Your task to perform on an android device: Add logitech g502 to the cart on newegg.com Image 0: 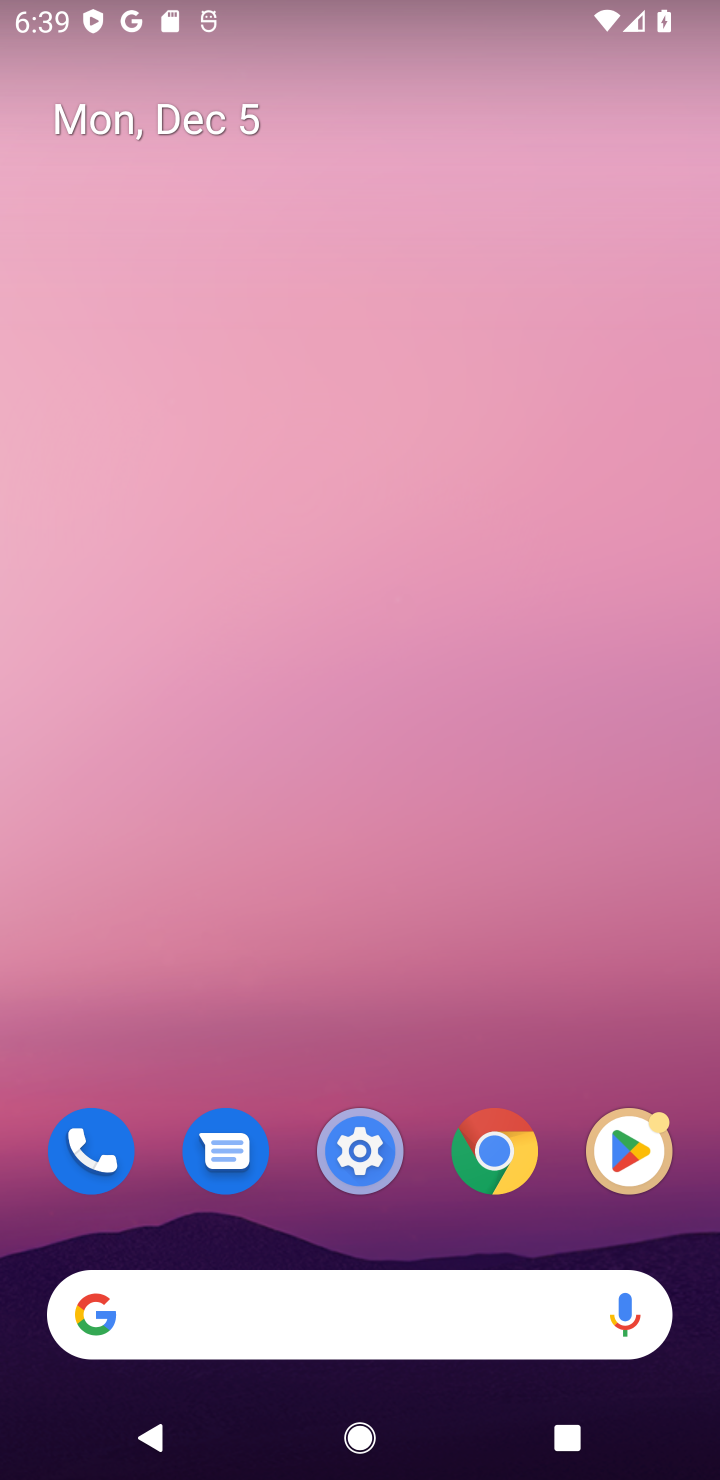
Step 0: click (491, 1300)
Your task to perform on an android device: Add logitech g502 to the cart on newegg.com Image 1: 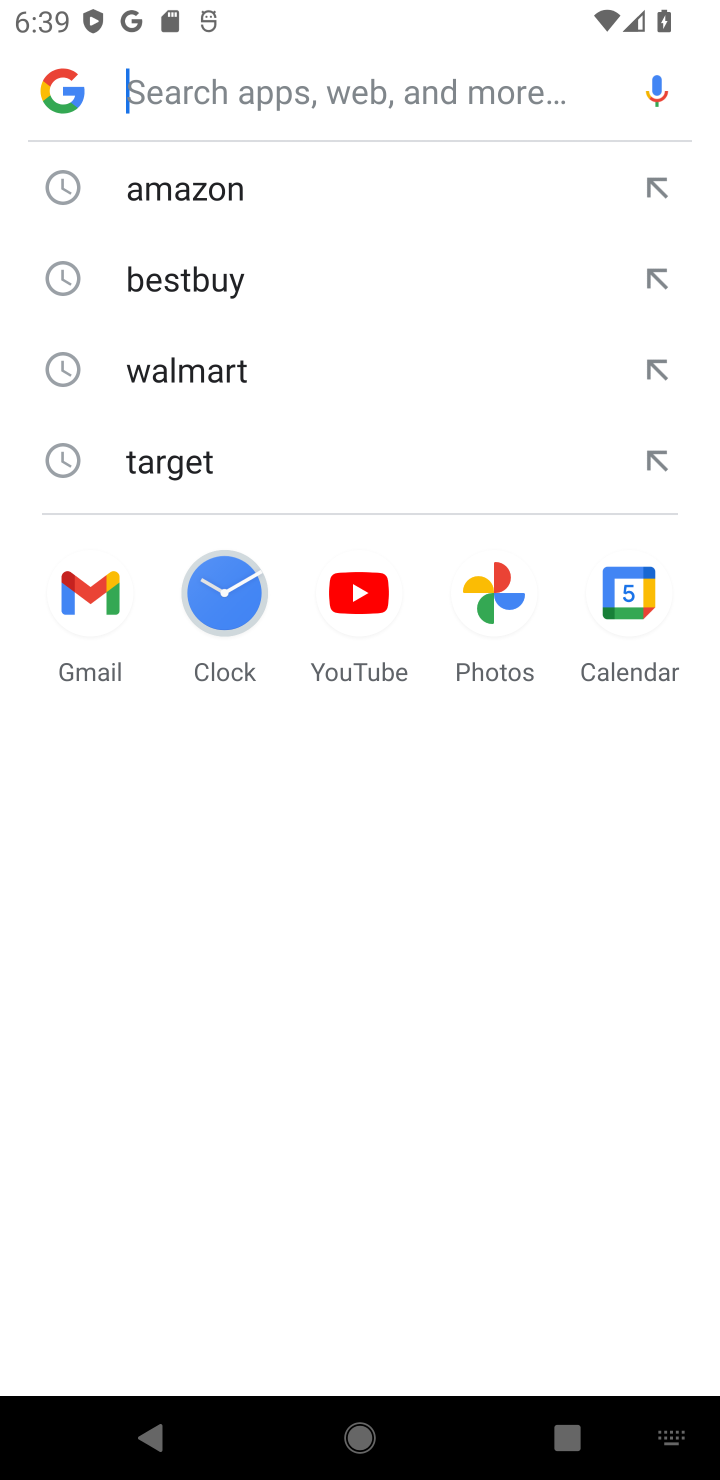
Step 1: type "newegg"
Your task to perform on an android device: Add logitech g502 to the cart on newegg.com Image 2: 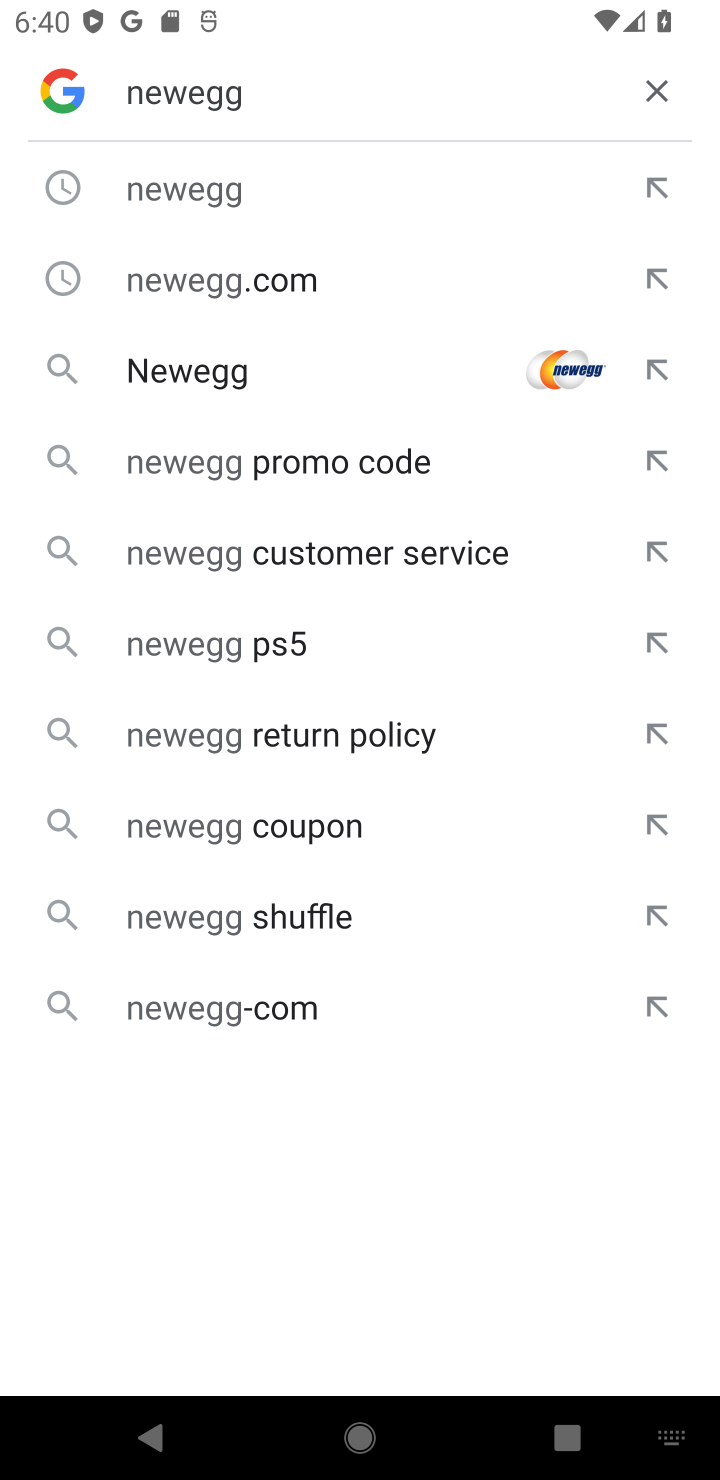
Step 2: click (275, 188)
Your task to perform on an android device: Add logitech g502 to the cart on newegg.com Image 3: 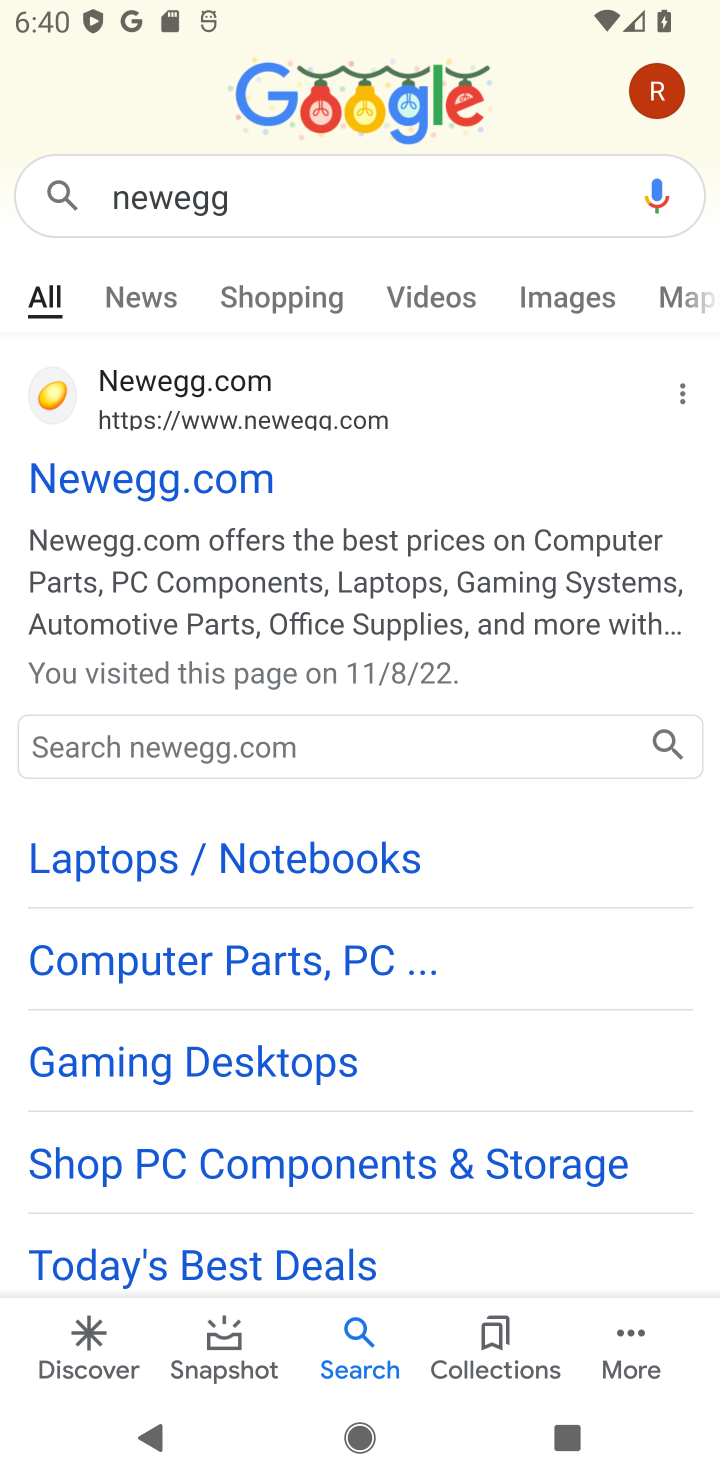
Step 3: click (163, 528)
Your task to perform on an android device: Add logitech g502 to the cart on newegg.com Image 4: 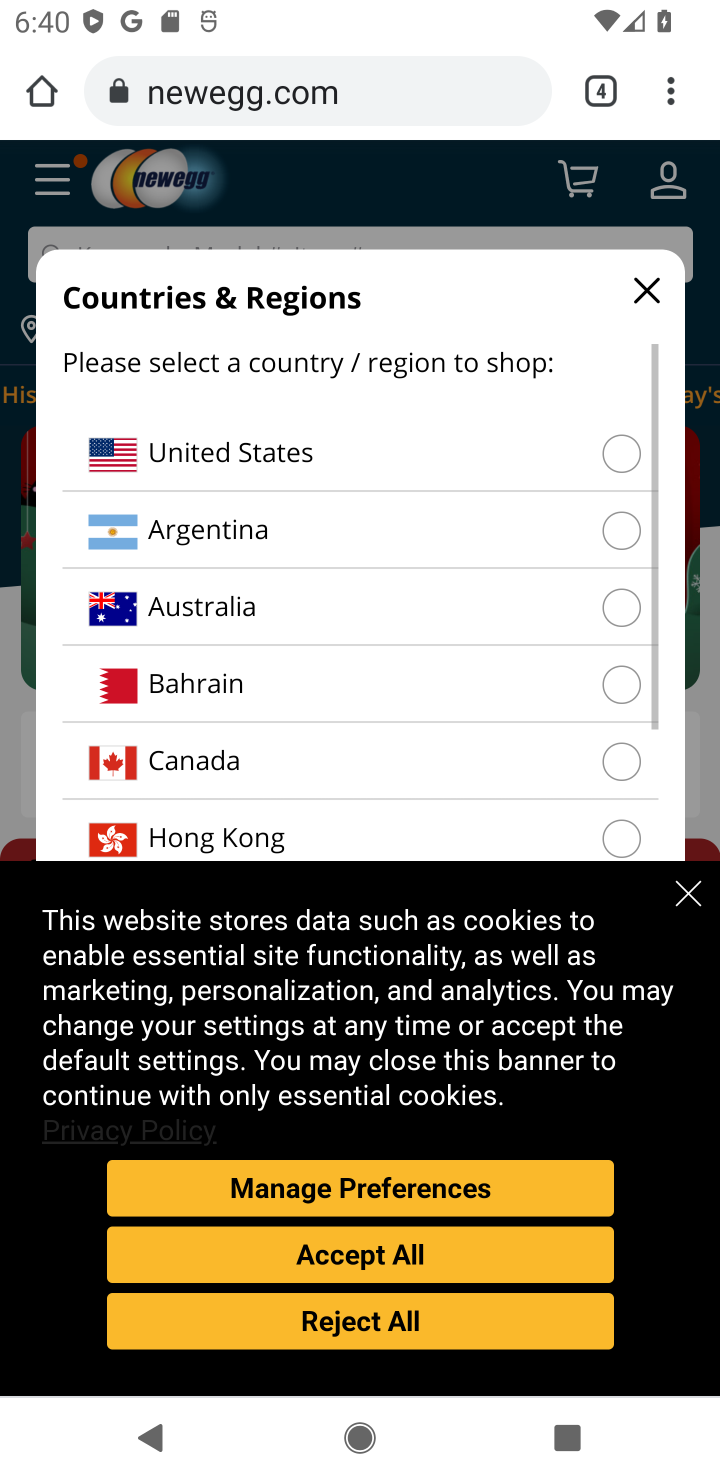
Step 4: click (444, 1269)
Your task to perform on an android device: Add logitech g502 to the cart on newegg.com Image 5: 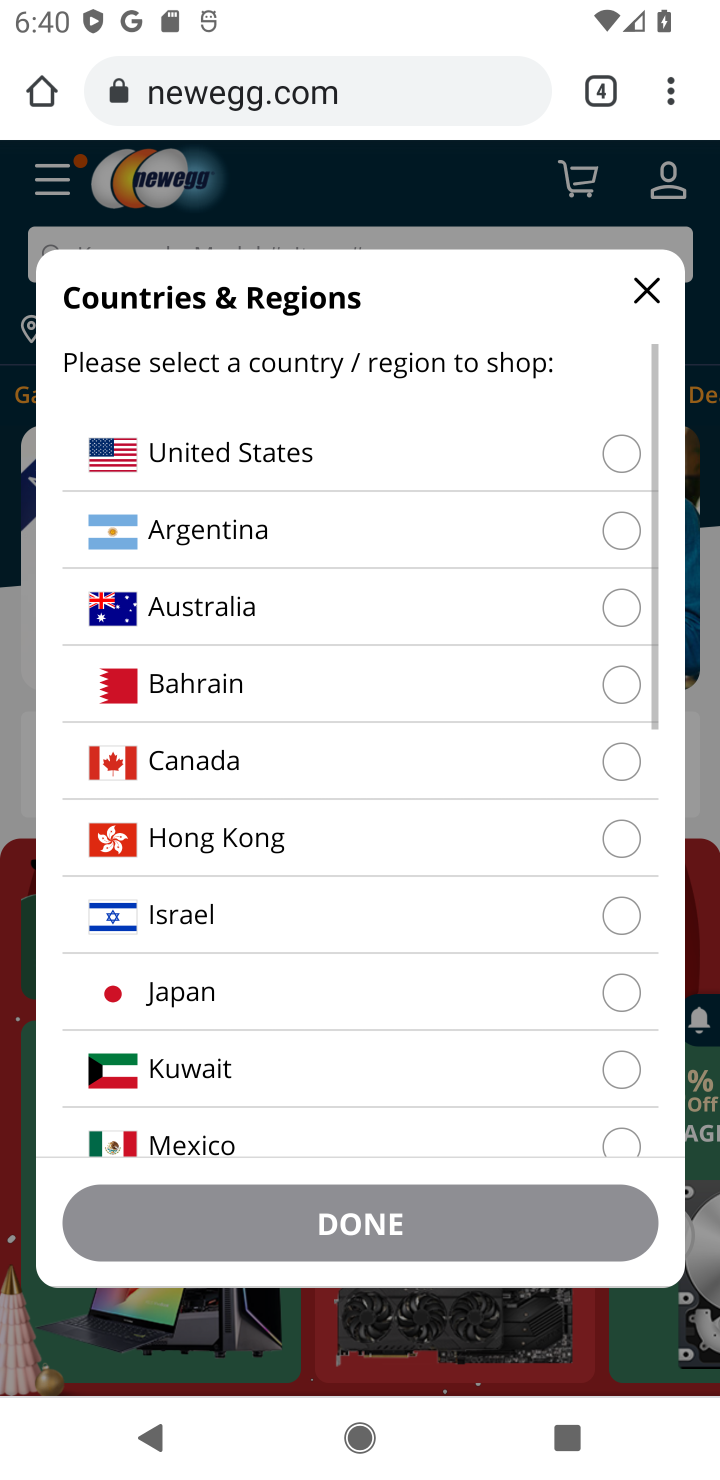
Step 5: click (479, 449)
Your task to perform on an android device: Add logitech g502 to the cart on newegg.com Image 6: 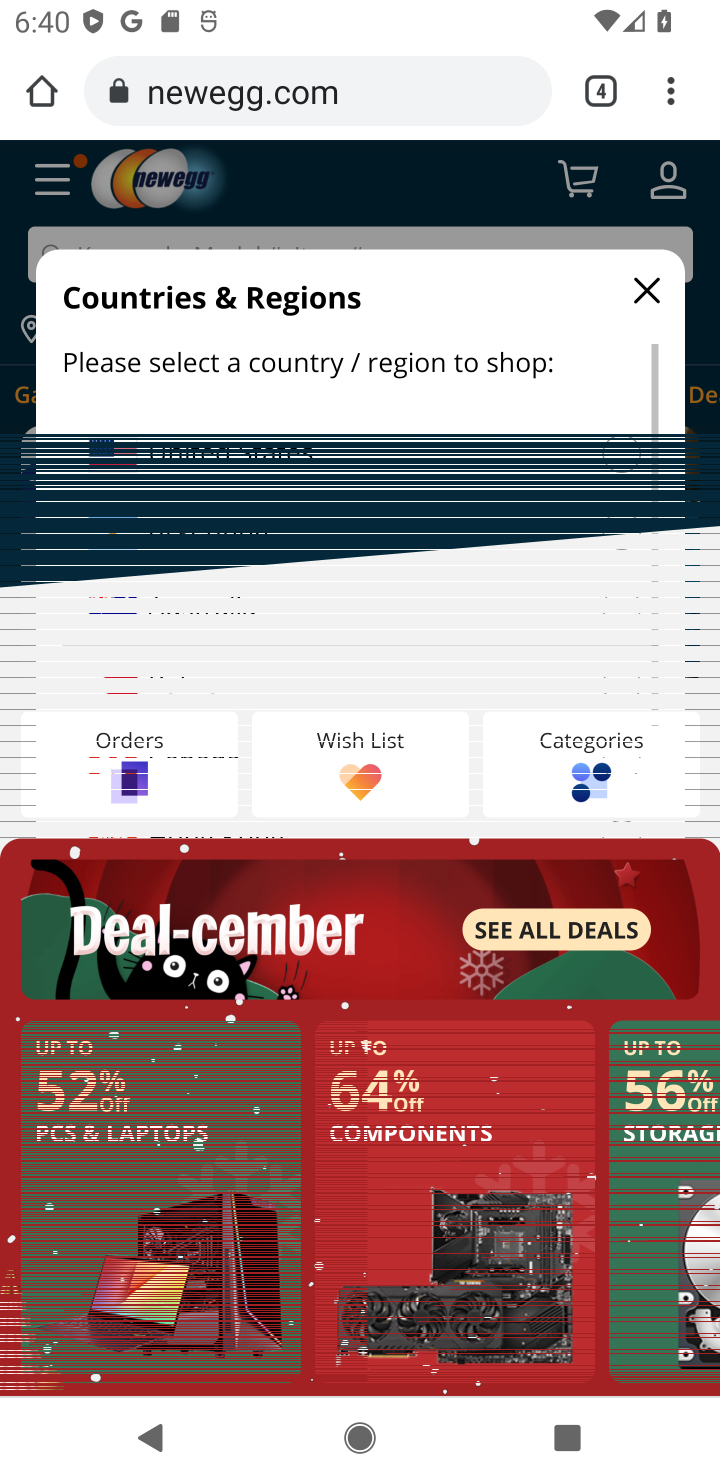
Step 6: click (479, 449)
Your task to perform on an android device: Add logitech g502 to the cart on newegg.com Image 7: 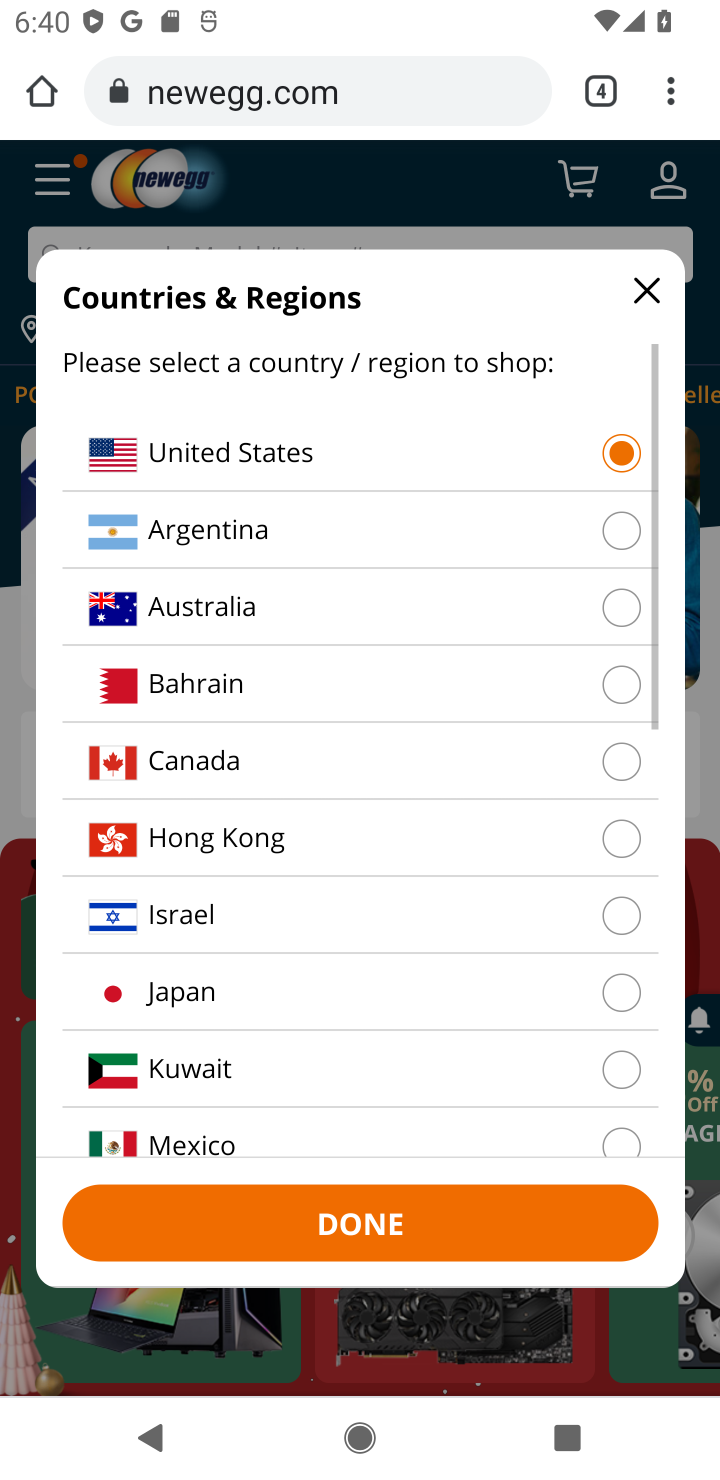
Step 7: click (459, 1198)
Your task to perform on an android device: Add logitech g502 to the cart on newegg.com Image 8: 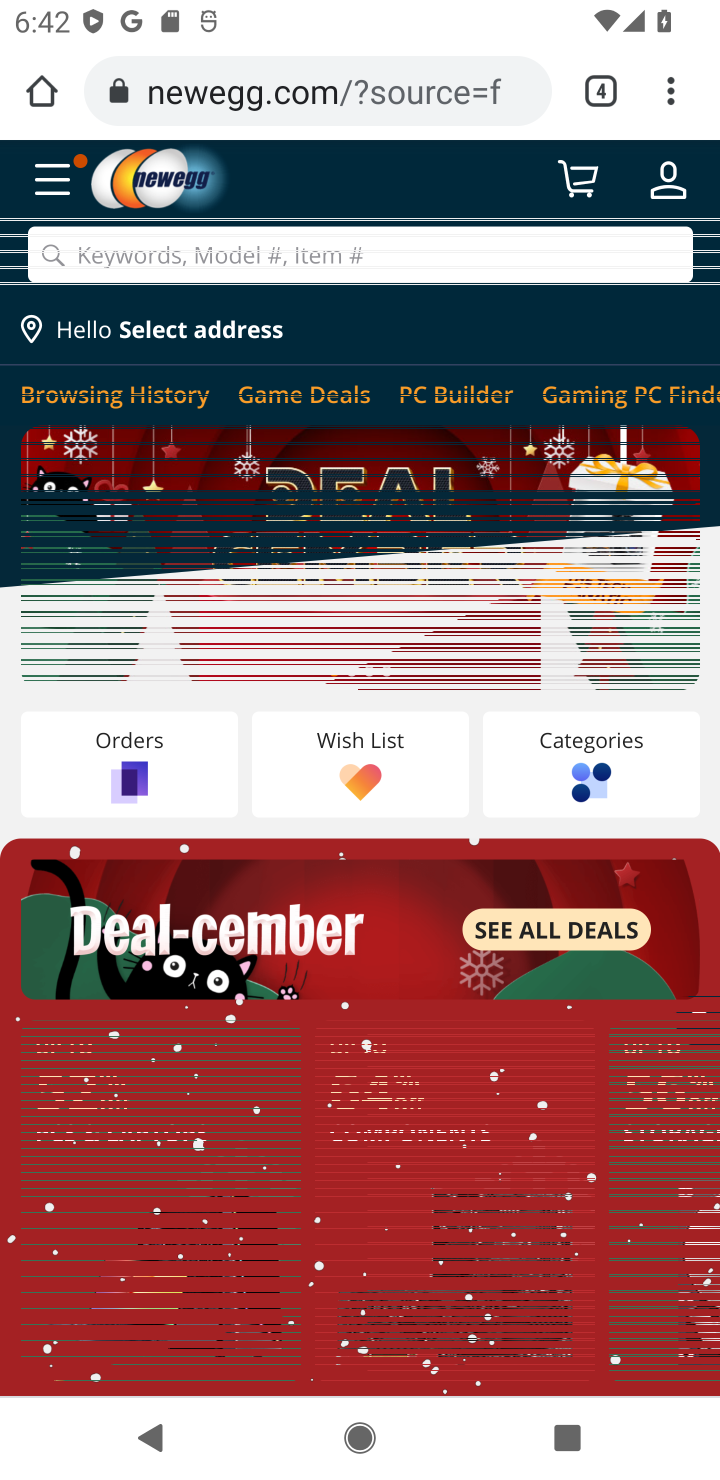
Step 8: task complete